Your task to perform on an android device: turn off notifications settings in the gmail app Image 0: 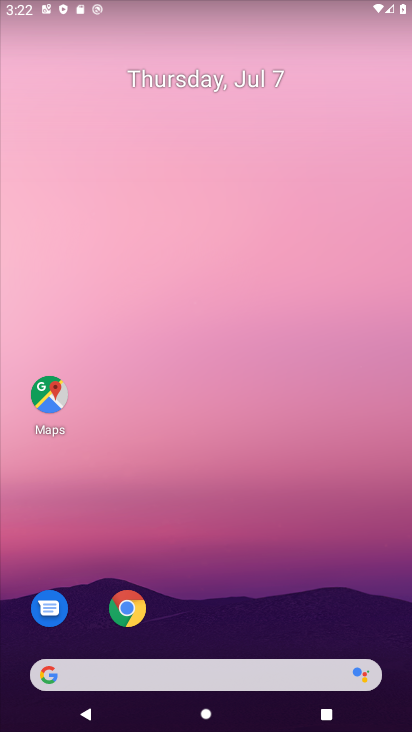
Step 0: drag from (394, 624) to (342, 105)
Your task to perform on an android device: turn off notifications settings in the gmail app Image 1: 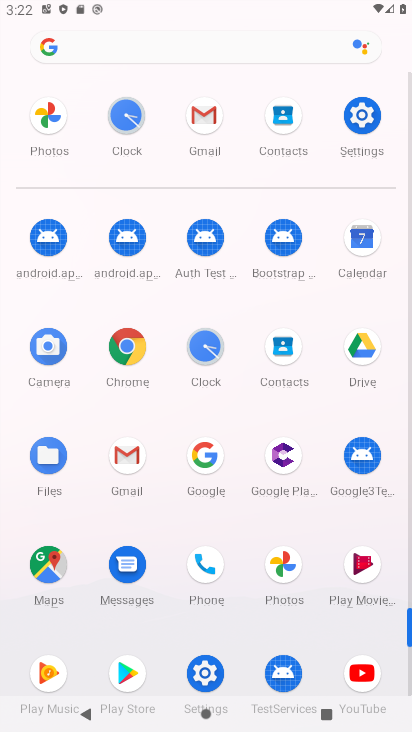
Step 1: click (126, 456)
Your task to perform on an android device: turn off notifications settings in the gmail app Image 2: 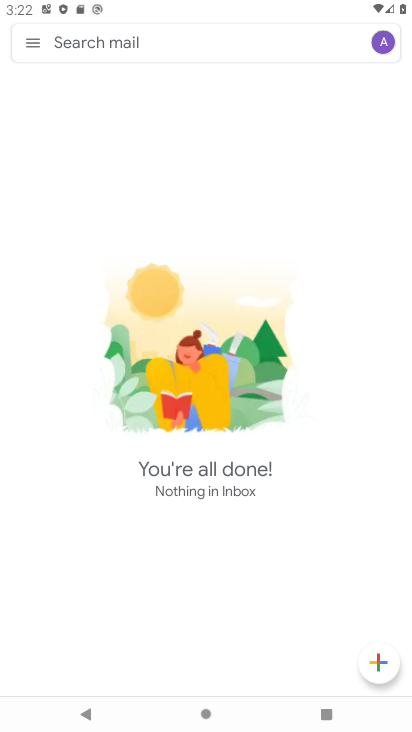
Step 2: click (29, 42)
Your task to perform on an android device: turn off notifications settings in the gmail app Image 3: 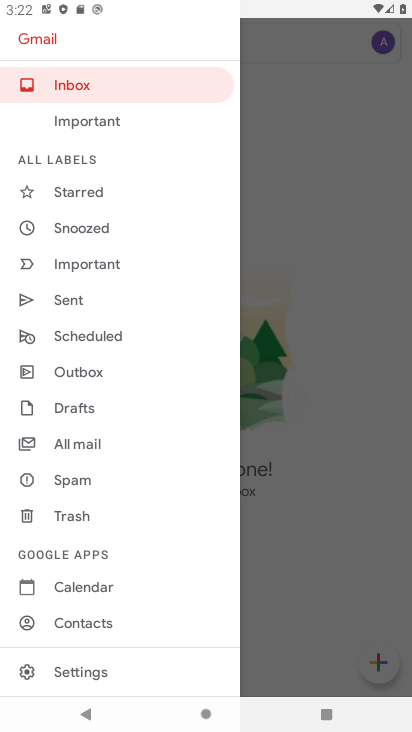
Step 3: click (88, 673)
Your task to perform on an android device: turn off notifications settings in the gmail app Image 4: 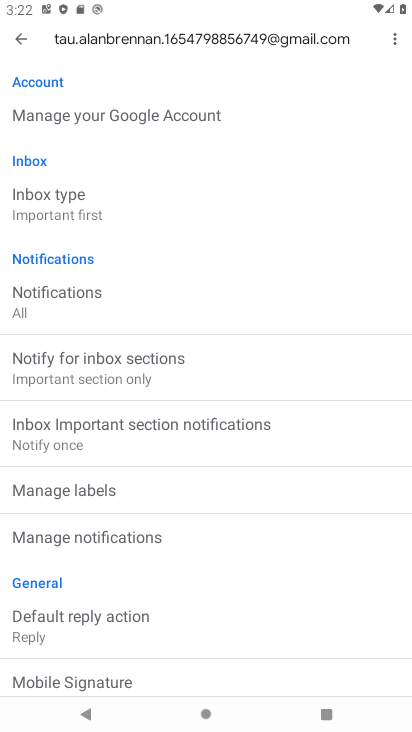
Step 4: click (106, 531)
Your task to perform on an android device: turn off notifications settings in the gmail app Image 5: 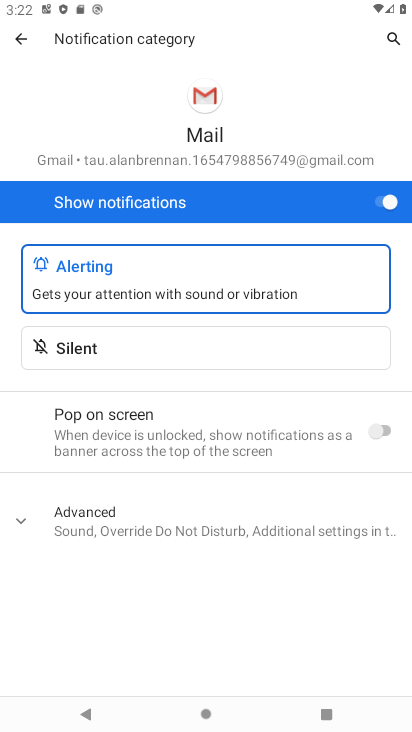
Step 5: click (378, 200)
Your task to perform on an android device: turn off notifications settings in the gmail app Image 6: 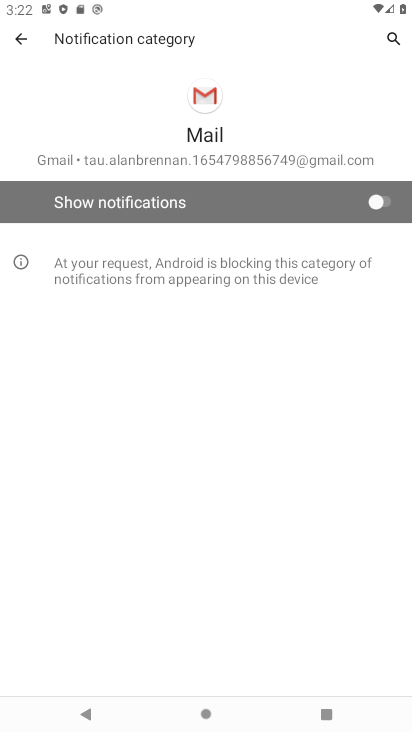
Step 6: task complete